Your task to perform on an android device: open chrome and create a bookmark for the current page Image 0: 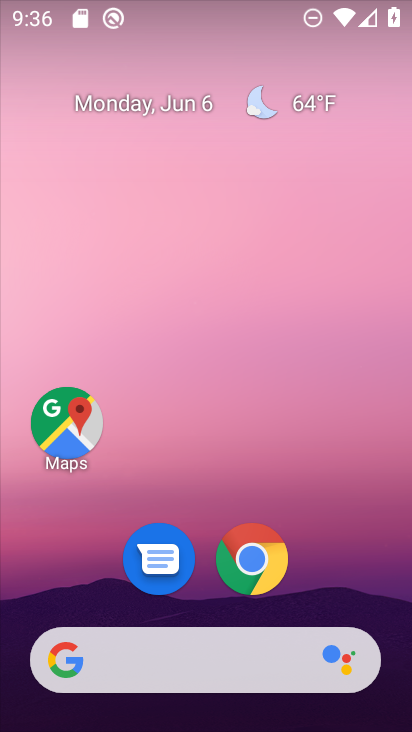
Step 0: click (251, 561)
Your task to perform on an android device: open chrome and create a bookmark for the current page Image 1: 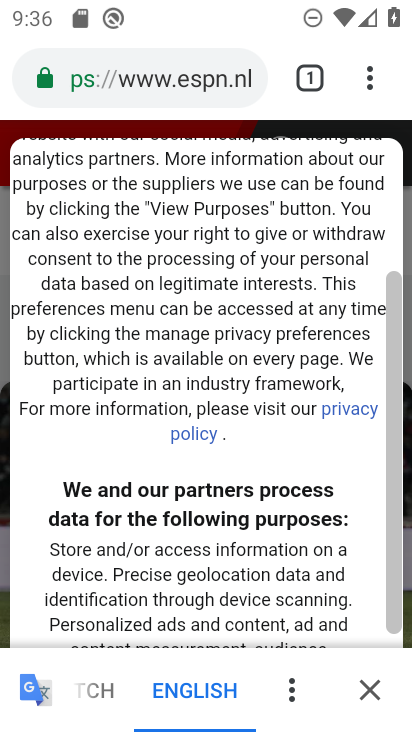
Step 1: click (369, 81)
Your task to perform on an android device: open chrome and create a bookmark for the current page Image 2: 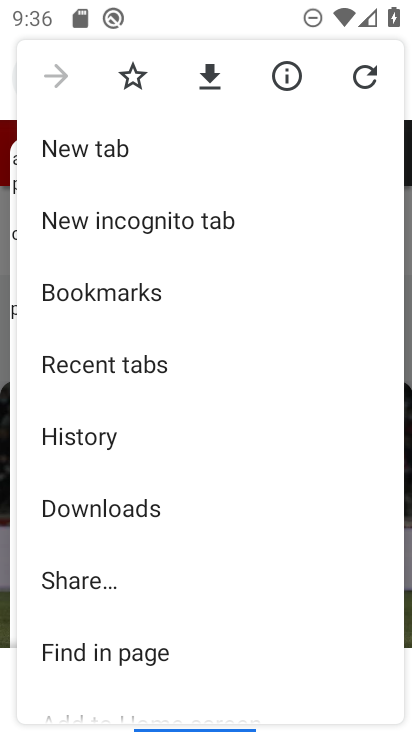
Step 2: click (130, 74)
Your task to perform on an android device: open chrome and create a bookmark for the current page Image 3: 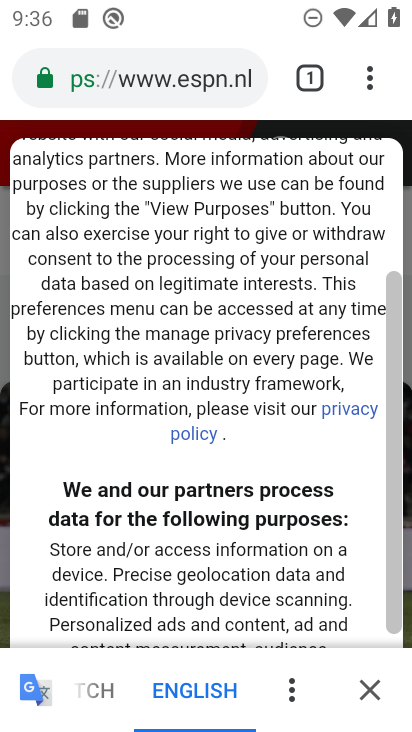
Step 3: task complete